Your task to perform on an android device: Do I have any events this weekend? Image 0: 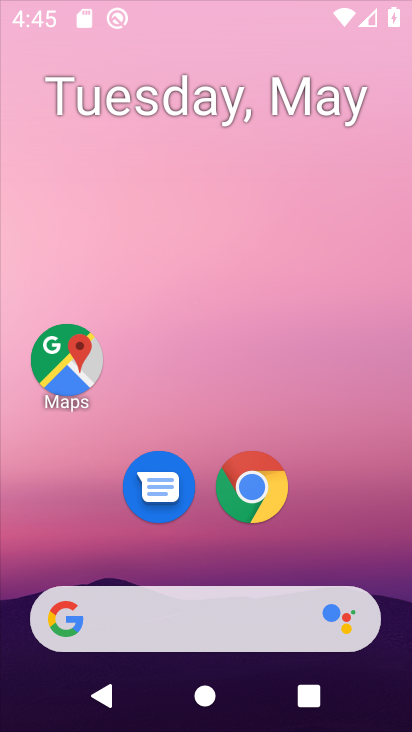
Step 0: drag from (336, 309) to (337, 189)
Your task to perform on an android device: Do I have any events this weekend? Image 1: 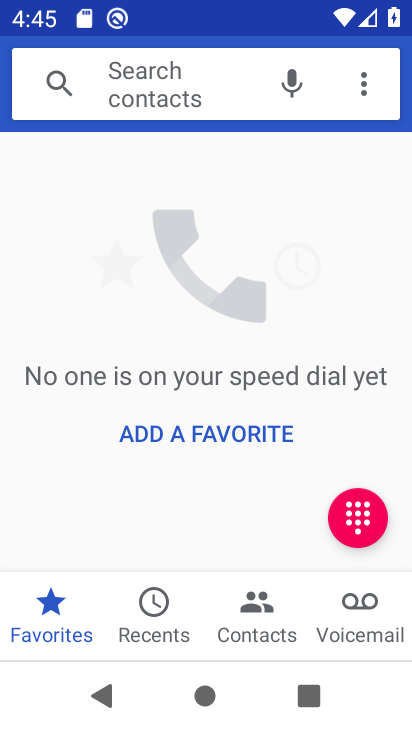
Step 1: press home button
Your task to perform on an android device: Do I have any events this weekend? Image 2: 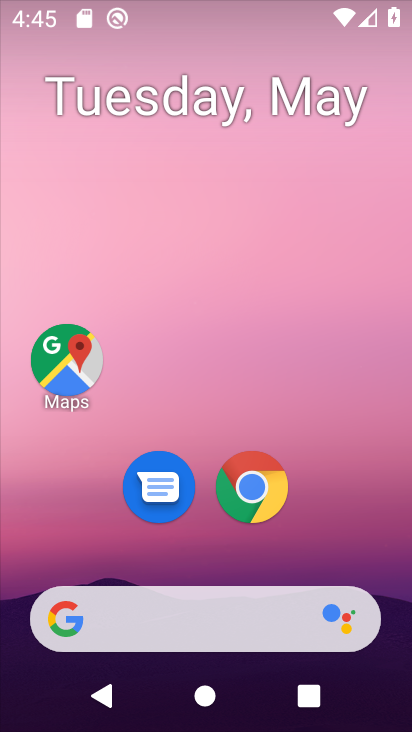
Step 2: drag from (328, 547) to (310, 211)
Your task to perform on an android device: Do I have any events this weekend? Image 3: 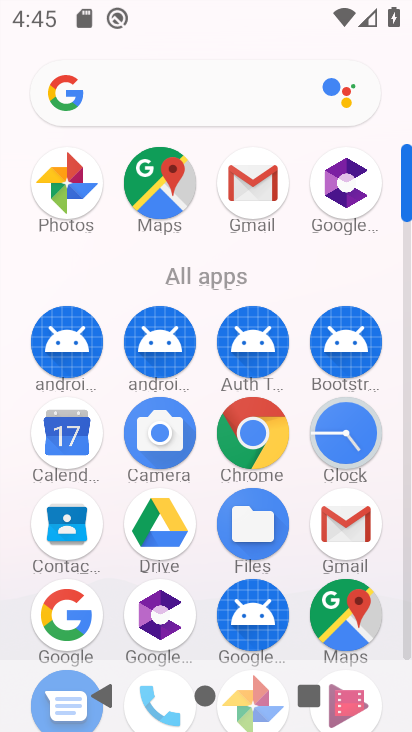
Step 3: click (87, 454)
Your task to perform on an android device: Do I have any events this weekend? Image 4: 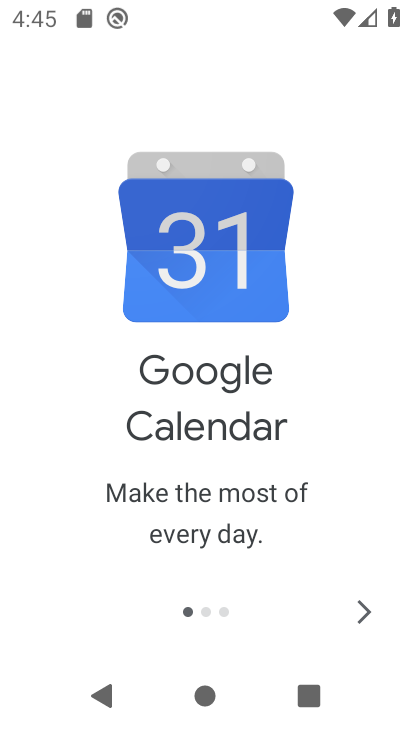
Step 4: click (347, 597)
Your task to perform on an android device: Do I have any events this weekend? Image 5: 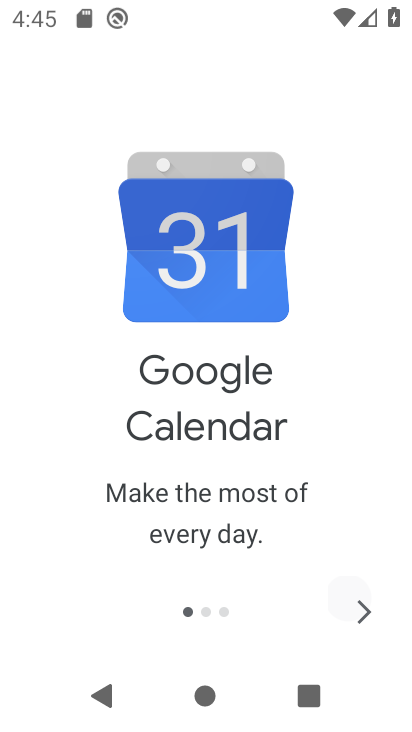
Step 5: click (347, 597)
Your task to perform on an android device: Do I have any events this weekend? Image 6: 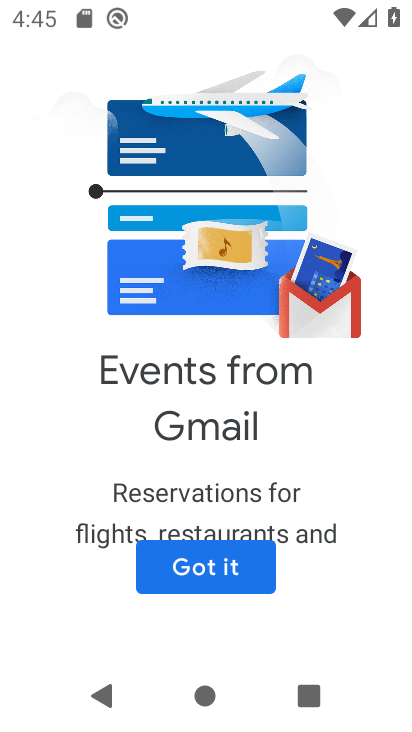
Step 6: click (347, 597)
Your task to perform on an android device: Do I have any events this weekend? Image 7: 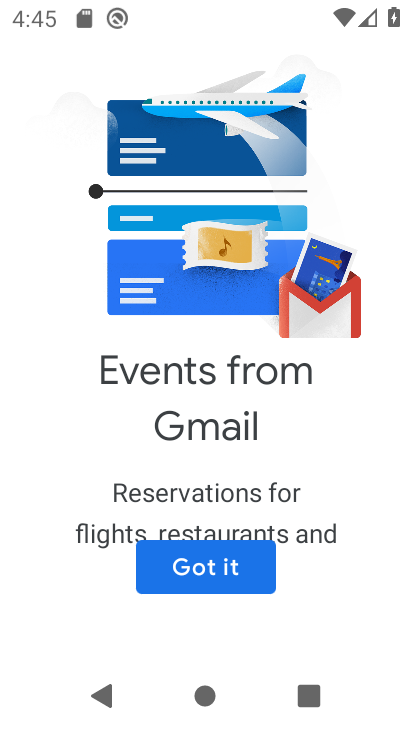
Step 7: click (258, 580)
Your task to perform on an android device: Do I have any events this weekend? Image 8: 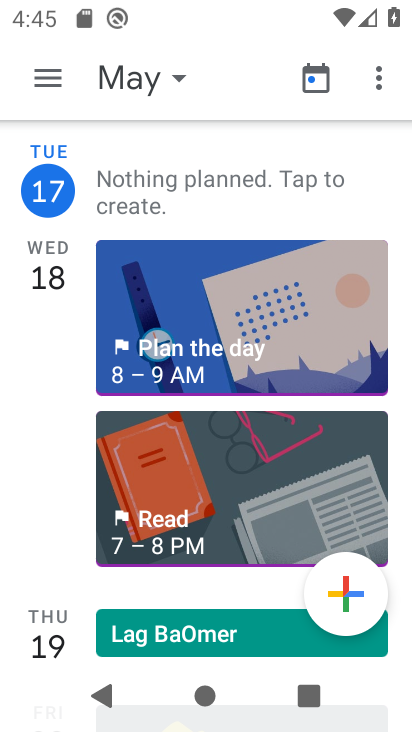
Step 8: click (173, 96)
Your task to perform on an android device: Do I have any events this weekend? Image 9: 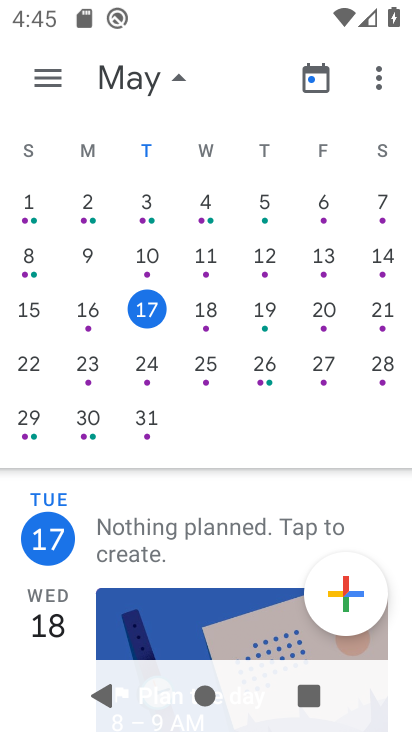
Step 9: click (61, 92)
Your task to perform on an android device: Do I have any events this weekend? Image 10: 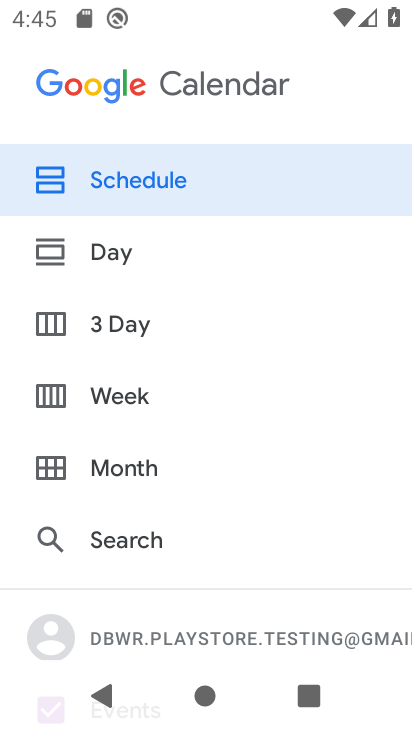
Step 10: click (98, 411)
Your task to perform on an android device: Do I have any events this weekend? Image 11: 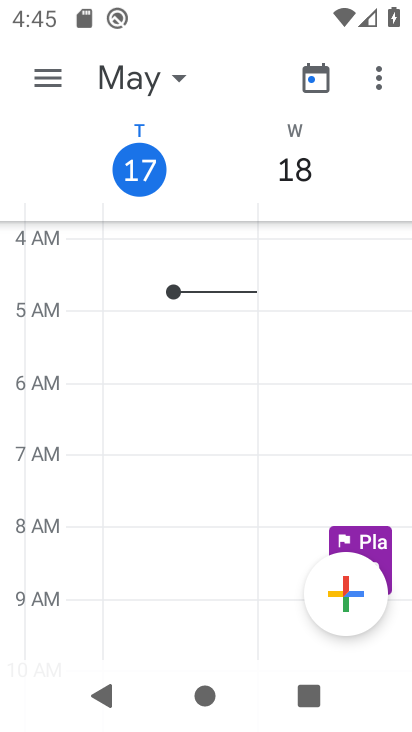
Step 11: task complete